Your task to perform on an android device: turn on the 24-hour format for clock Image 0: 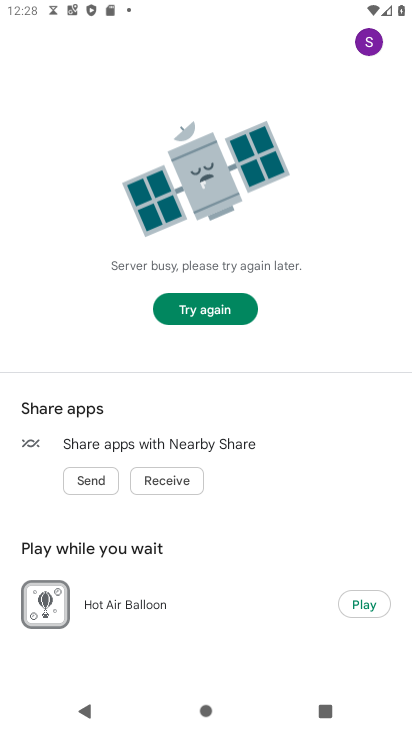
Step 0: press home button
Your task to perform on an android device: turn on the 24-hour format for clock Image 1: 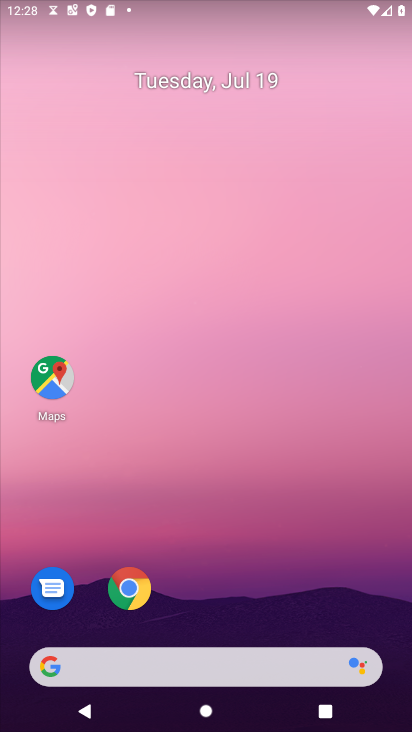
Step 1: drag from (275, 641) to (301, 267)
Your task to perform on an android device: turn on the 24-hour format for clock Image 2: 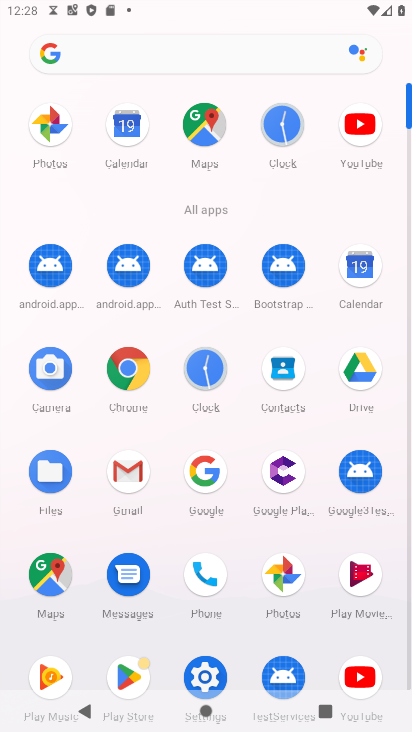
Step 2: click (229, 367)
Your task to perform on an android device: turn on the 24-hour format for clock Image 3: 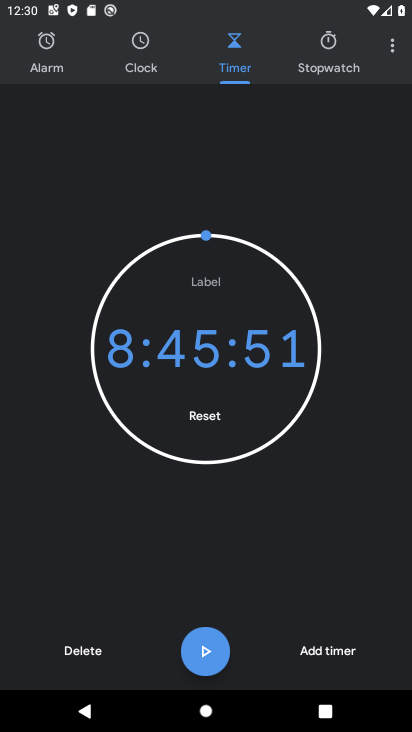
Step 3: click (386, 61)
Your task to perform on an android device: turn on the 24-hour format for clock Image 4: 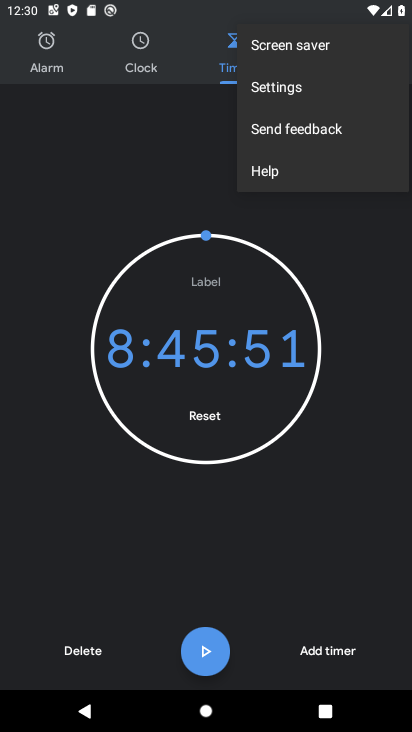
Step 4: click (285, 84)
Your task to perform on an android device: turn on the 24-hour format for clock Image 5: 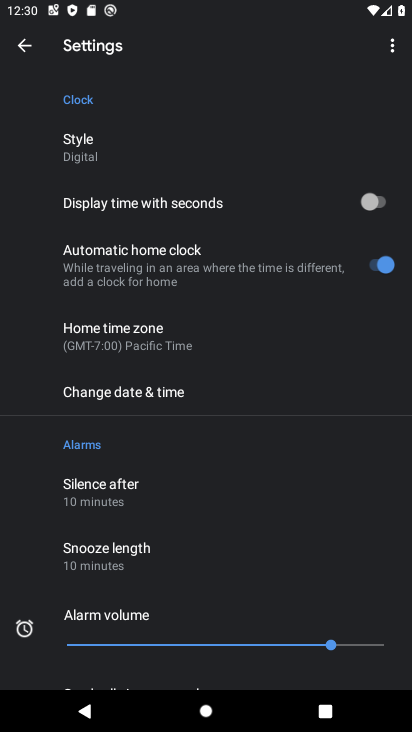
Step 5: click (159, 392)
Your task to perform on an android device: turn on the 24-hour format for clock Image 6: 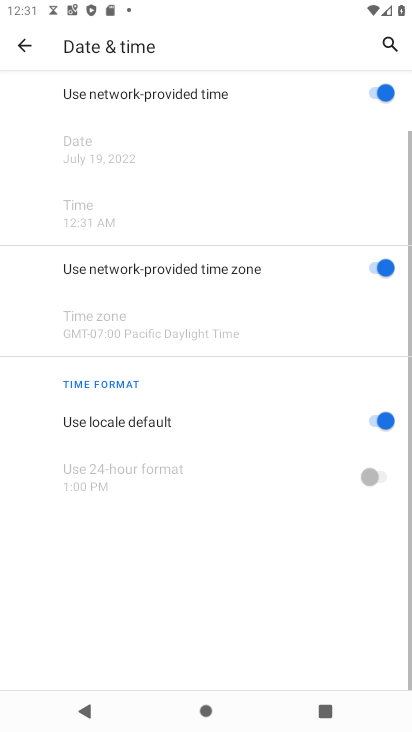
Step 6: click (370, 465)
Your task to perform on an android device: turn on the 24-hour format for clock Image 7: 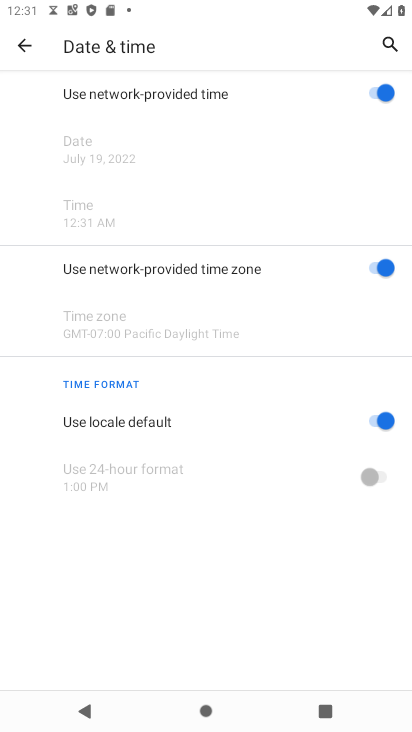
Step 7: click (371, 411)
Your task to perform on an android device: turn on the 24-hour format for clock Image 8: 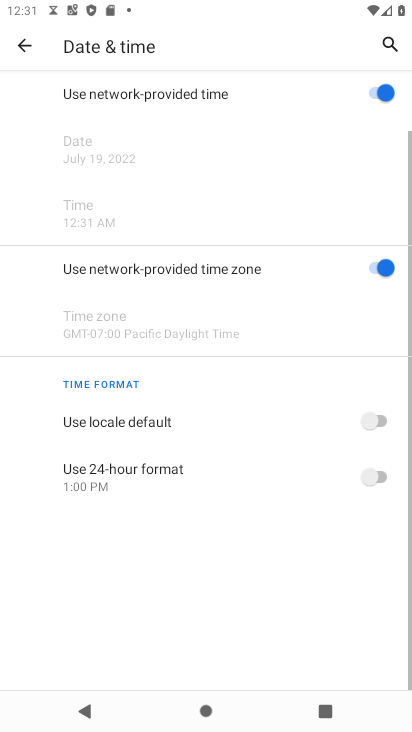
Step 8: click (377, 482)
Your task to perform on an android device: turn on the 24-hour format for clock Image 9: 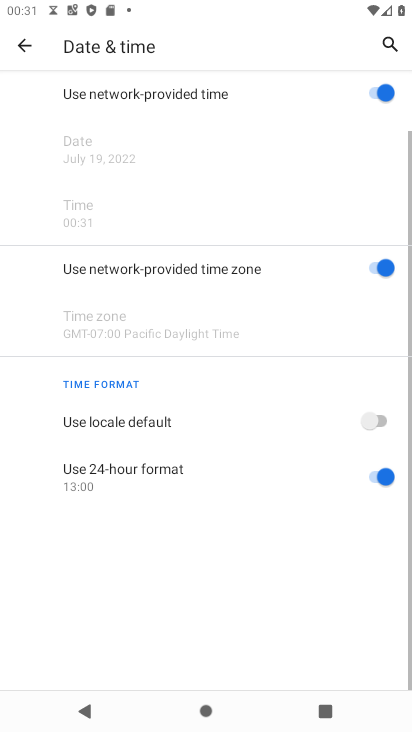
Step 9: task complete